Your task to perform on an android device: turn off location Image 0: 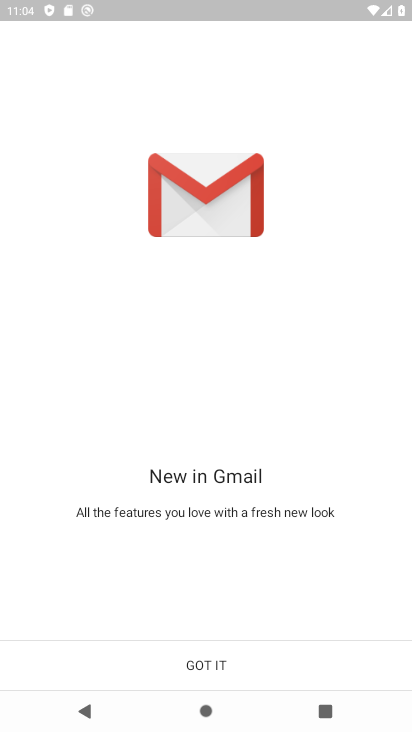
Step 0: press home button
Your task to perform on an android device: turn off location Image 1: 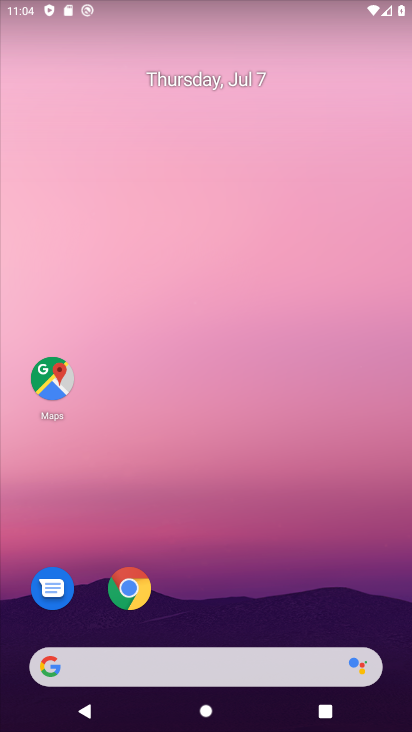
Step 1: drag from (336, 564) to (313, 129)
Your task to perform on an android device: turn off location Image 2: 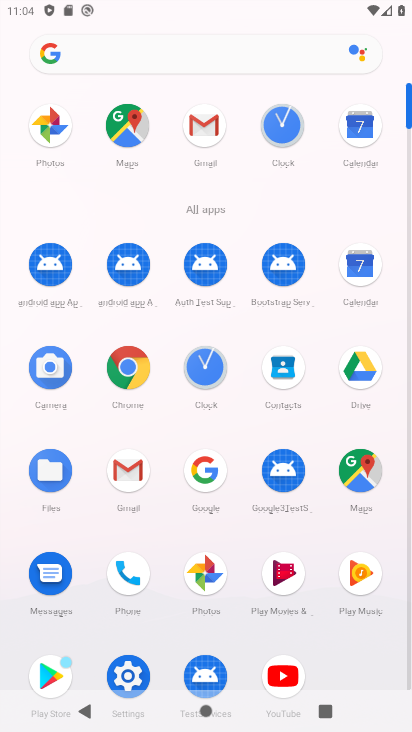
Step 2: click (128, 672)
Your task to perform on an android device: turn off location Image 3: 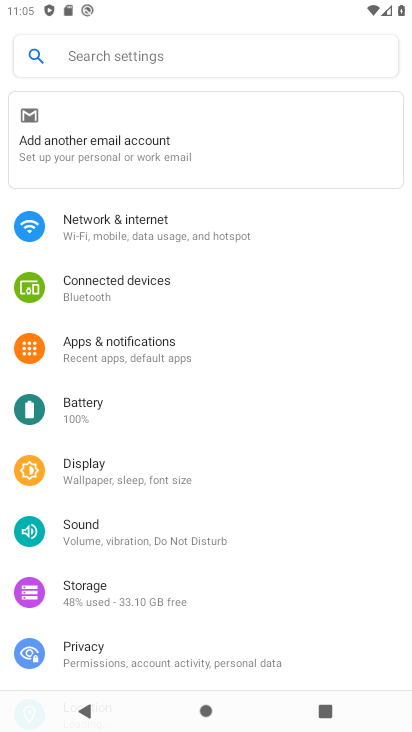
Step 3: drag from (143, 607) to (151, 449)
Your task to perform on an android device: turn off location Image 4: 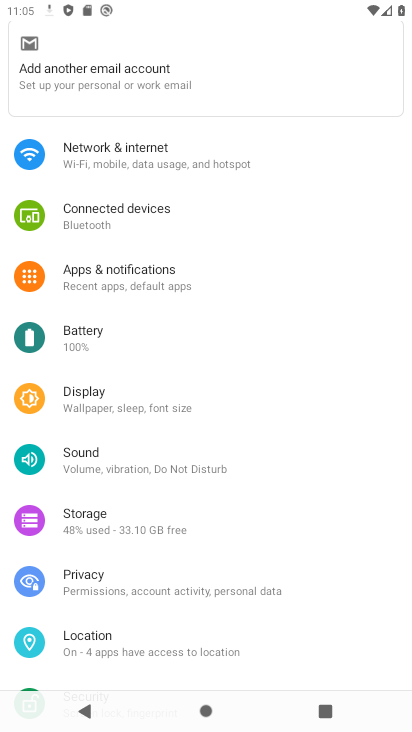
Step 4: click (106, 641)
Your task to perform on an android device: turn off location Image 5: 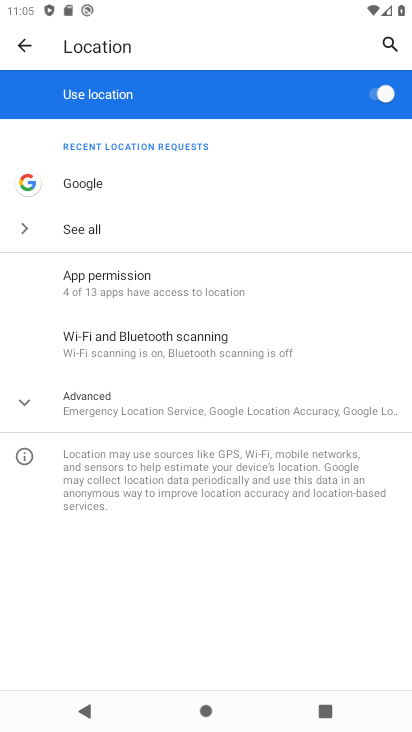
Step 5: click (380, 88)
Your task to perform on an android device: turn off location Image 6: 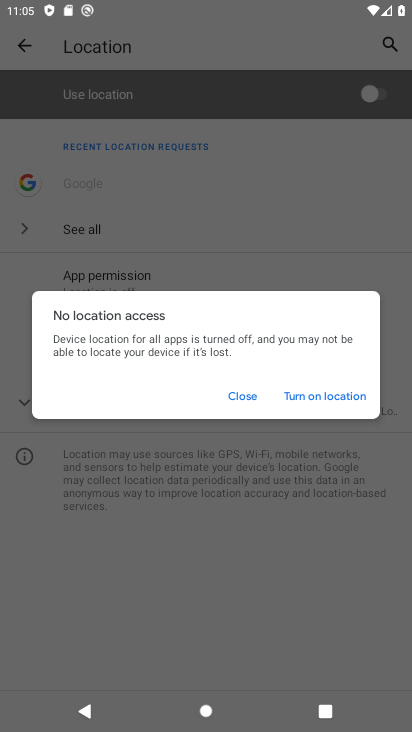
Step 6: task complete